Your task to perform on an android device: Go to Wikipedia Image 0: 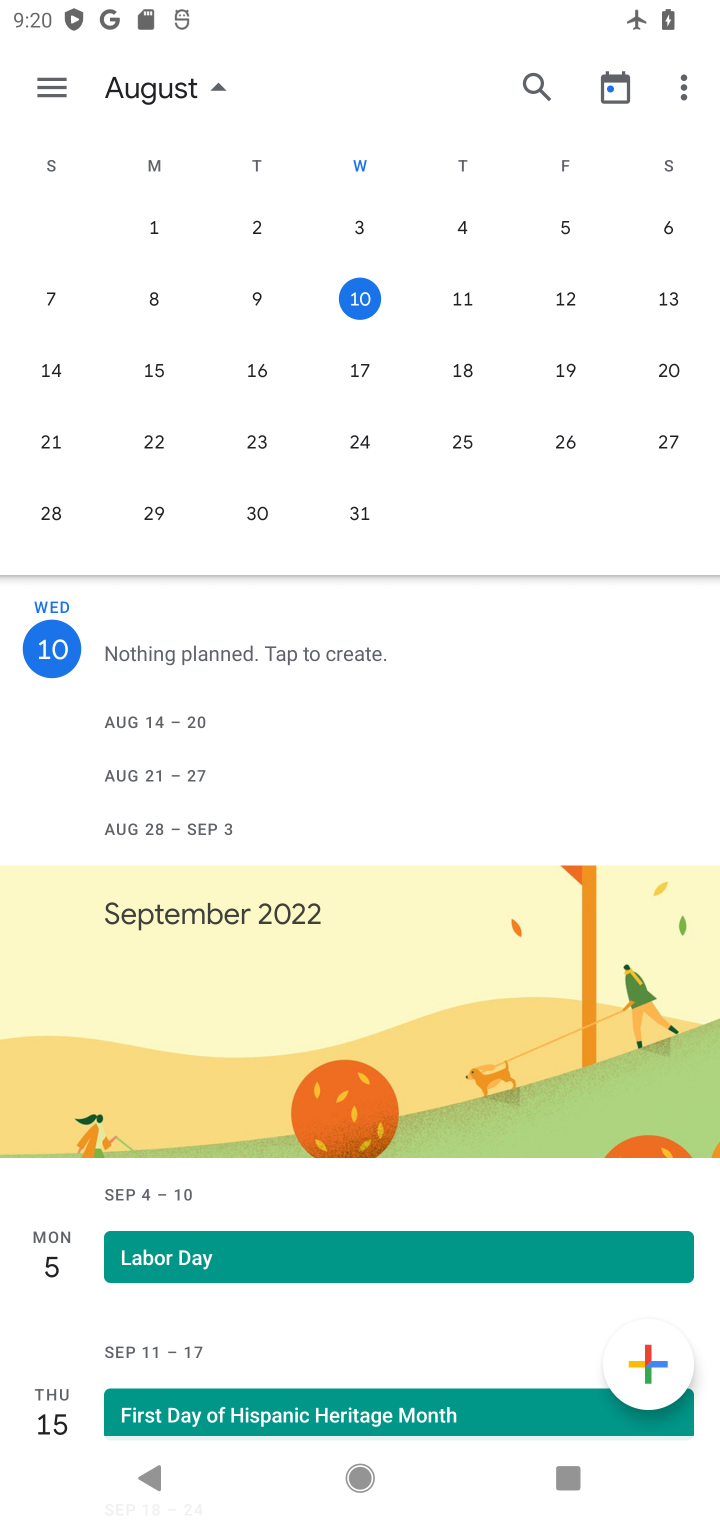
Step 0: press home button
Your task to perform on an android device: Go to Wikipedia Image 1: 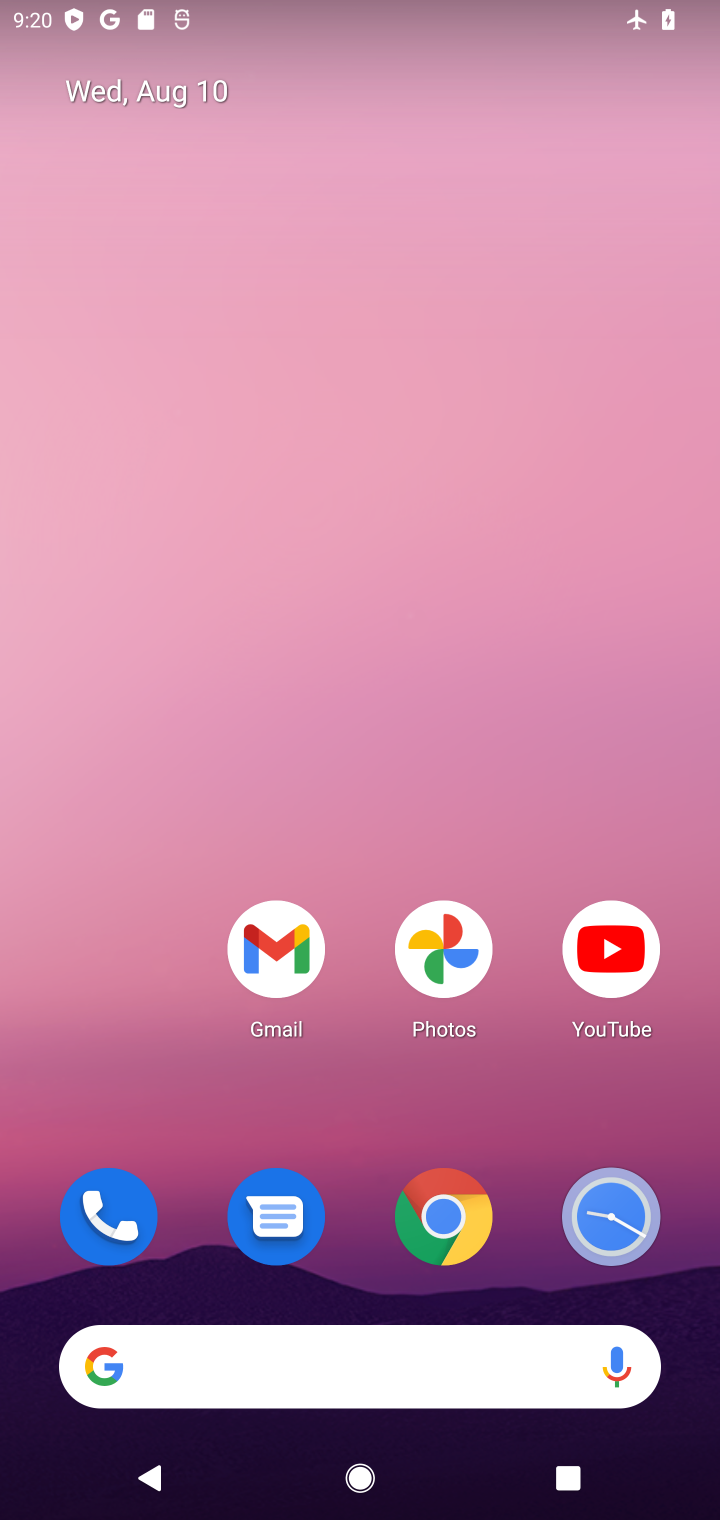
Step 1: click (471, 1227)
Your task to perform on an android device: Go to Wikipedia Image 2: 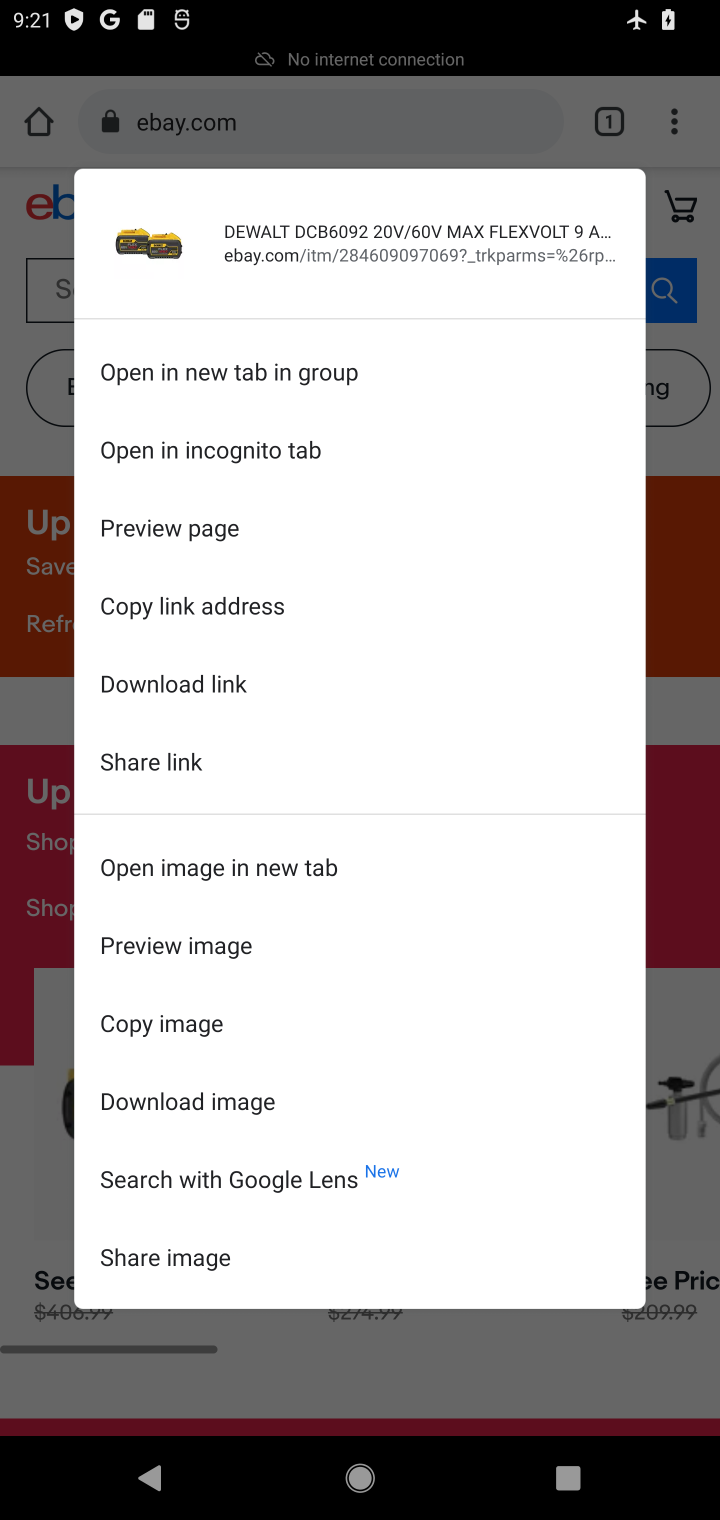
Step 2: click (540, 91)
Your task to perform on an android device: Go to Wikipedia Image 3: 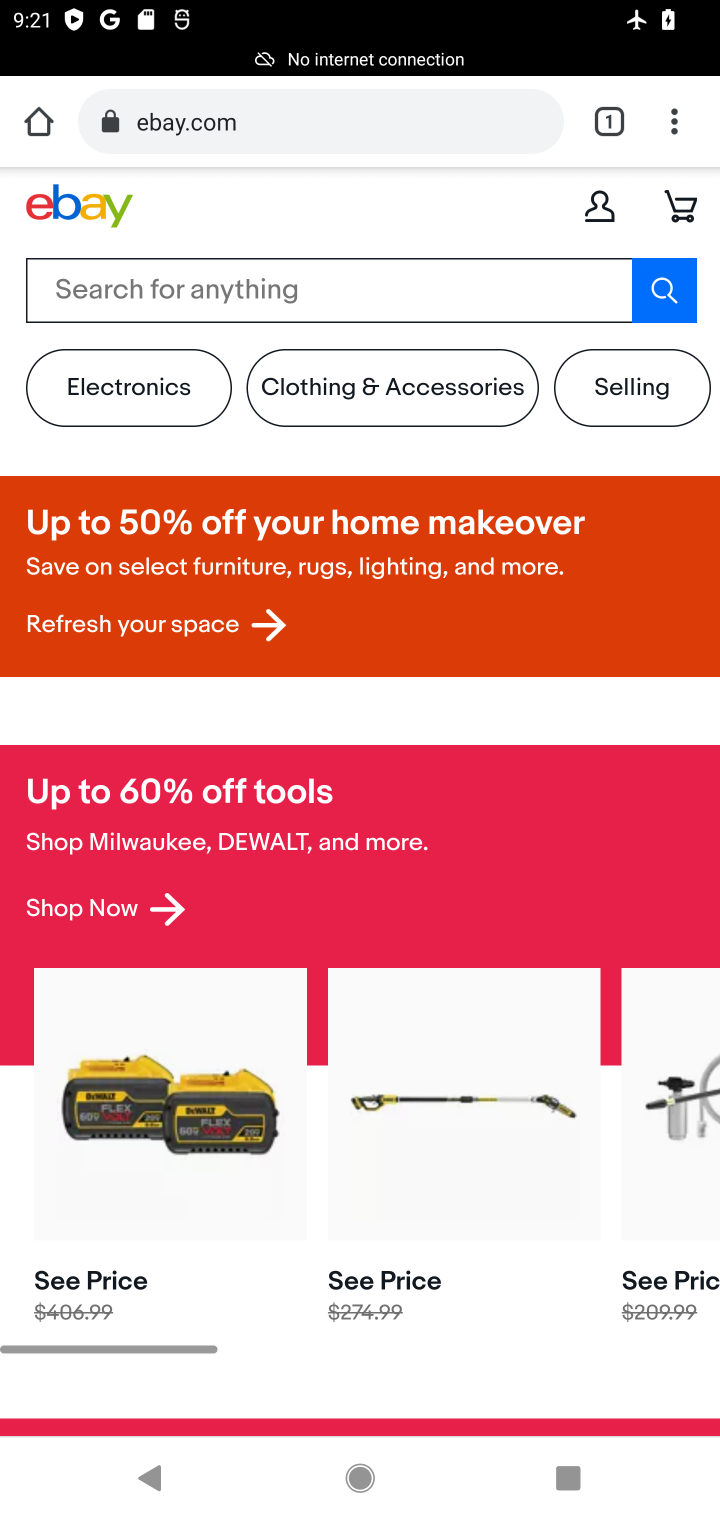
Step 3: click (603, 129)
Your task to perform on an android device: Go to Wikipedia Image 4: 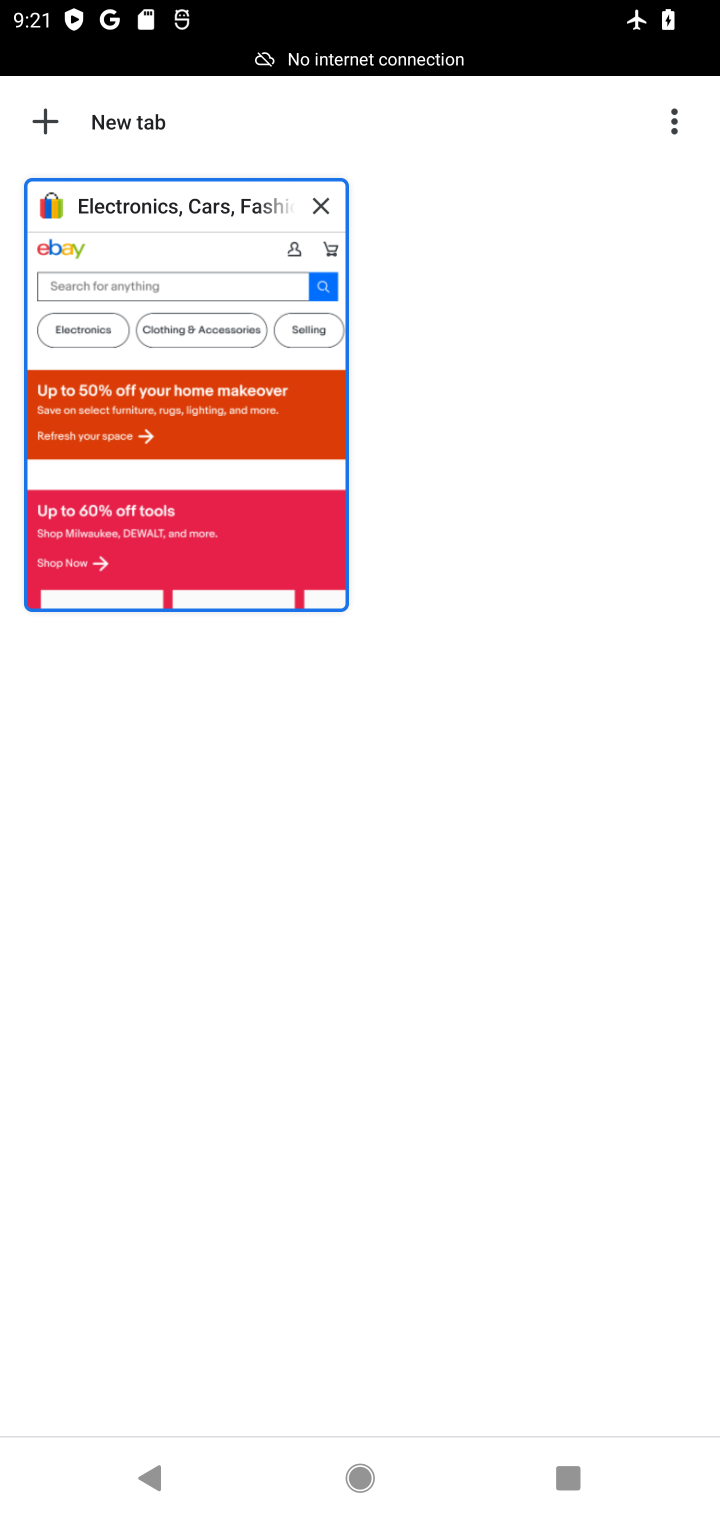
Step 4: click (56, 132)
Your task to perform on an android device: Go to Wikipedia Image 5: 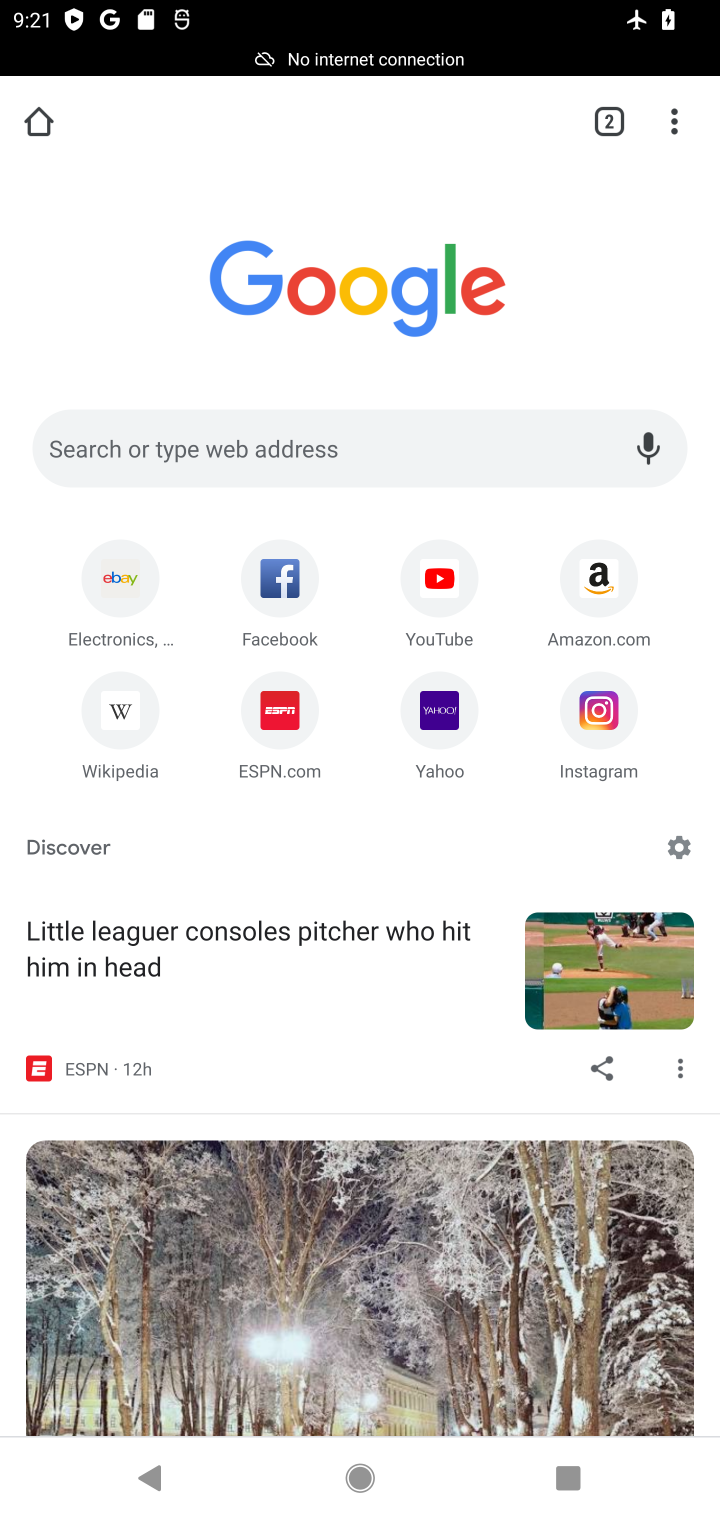
Step 5: click (156, 727)
Your task to perform on an android device: Go to Wikipedia Image 6: 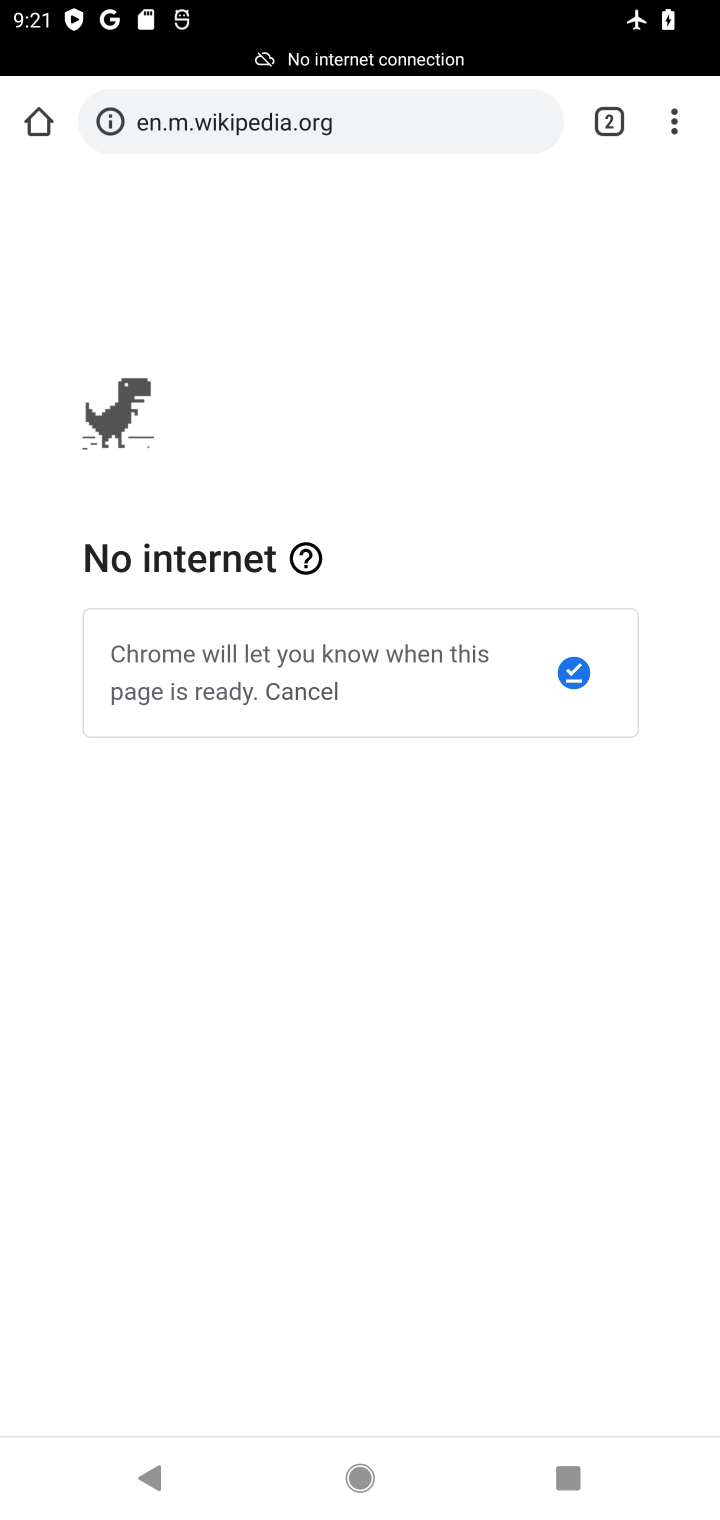
Step 6: task complete